Your task to perform on an android device: delete location history Image 0: 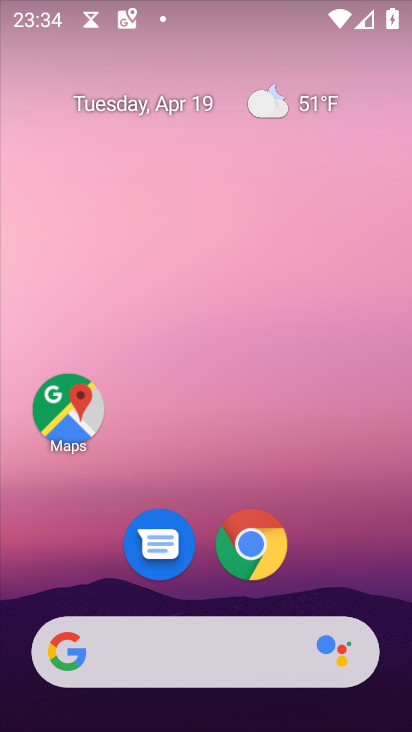
Step 0: drag from (342, 487) to (353, 70)
Your task to perform on an android device: delete location history Image 1: 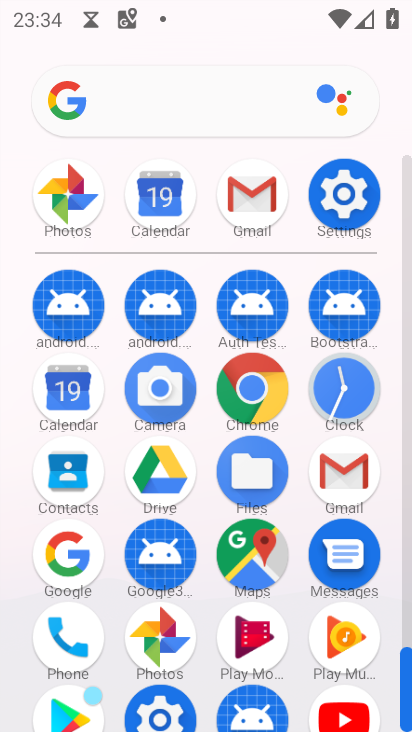
Step 1: click (260, 563)
Your task to perform on an android device: delete location history Image 2: 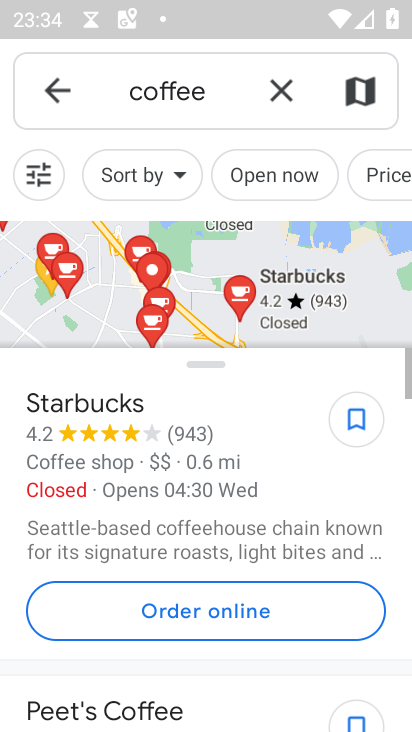
Step 2: click (37, 98)
Your task to perform on an android device: delete location history Image 3: 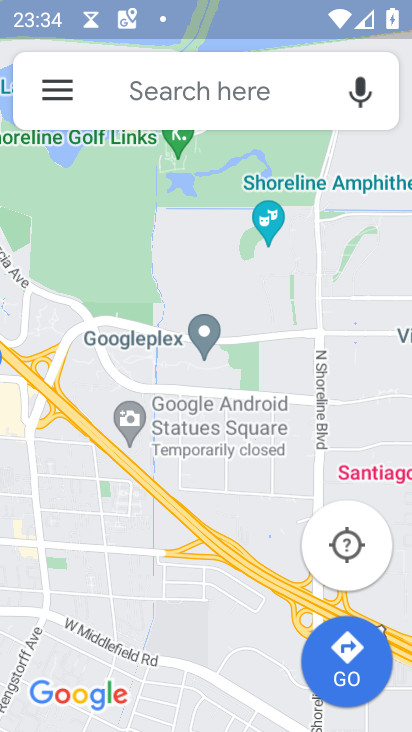
Step 3: click (44, 93)
Your task to perform on an android device: delete location history Image 4: 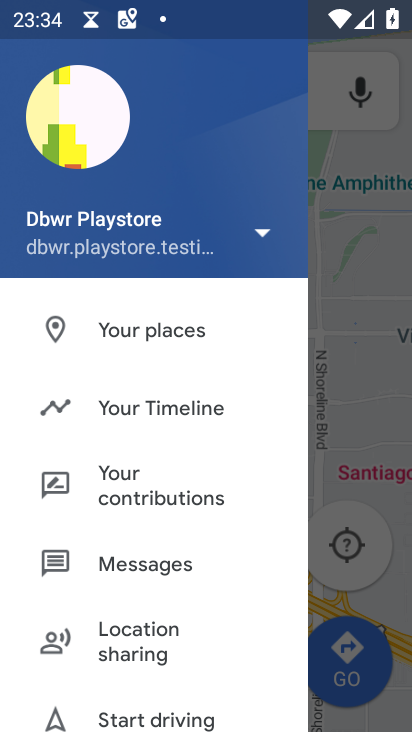
Step 4: click (131, 407)
Your task to perform on an android device: delete location history Image 5: 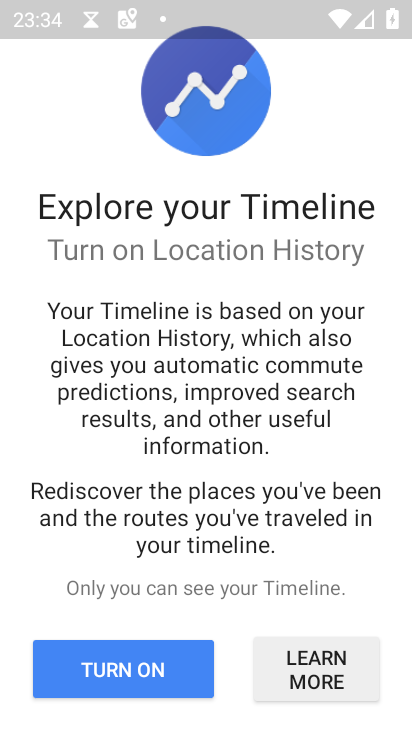
Step 5: drag from (243, 600) to (274, 282)
Your task to perform on an android device: delete location history Image 6: 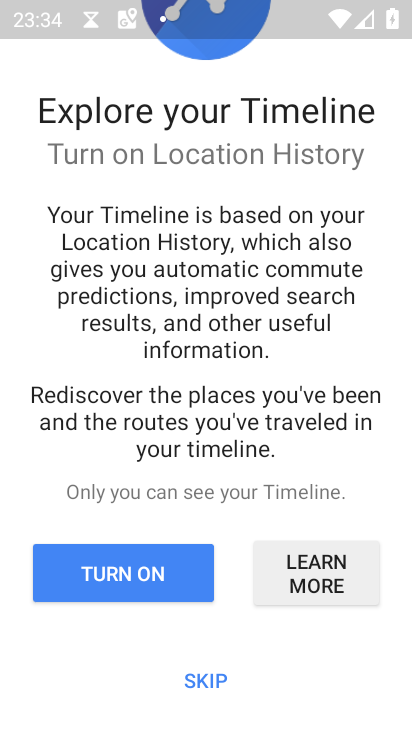
Step 6: click (188, 678)
Your task to perform on an android device: delete location history Image 7: 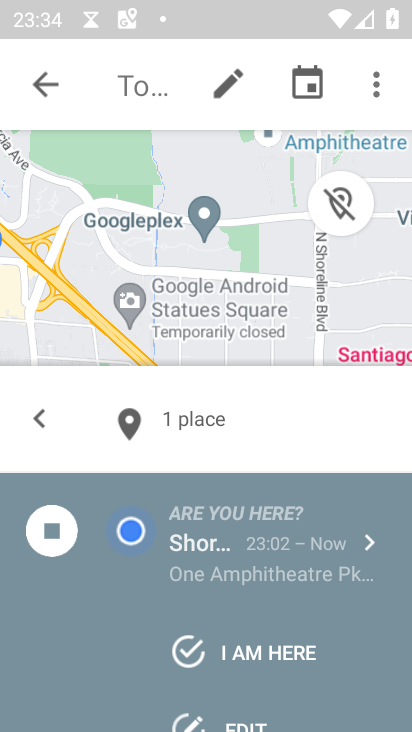
Step 7: click (377, 81)
Your task to perform on an android device: delete location history Image 8: 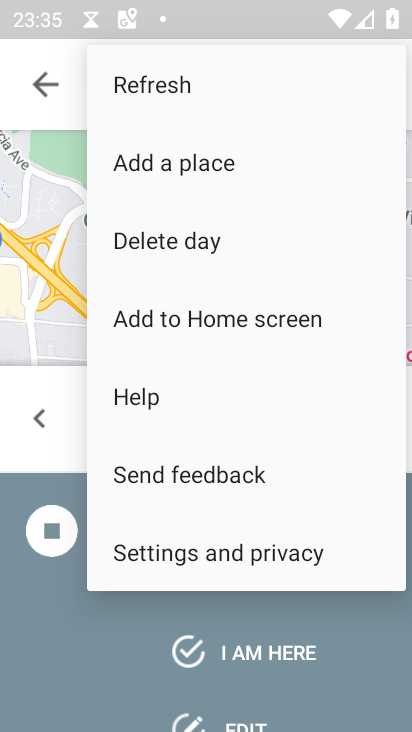
Step 8: click (211, 562)
Your task to perform on an android device: delete location history Image 9: 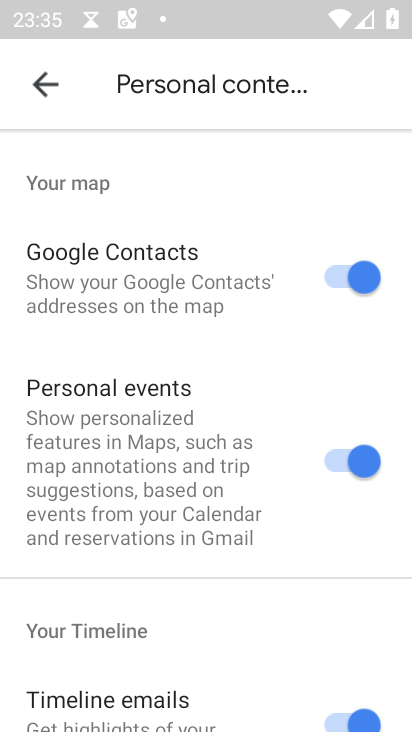
Step 9: drag from (162, 595) to (166, 436)
Your task to perform on an android device: delete location history Image 10: 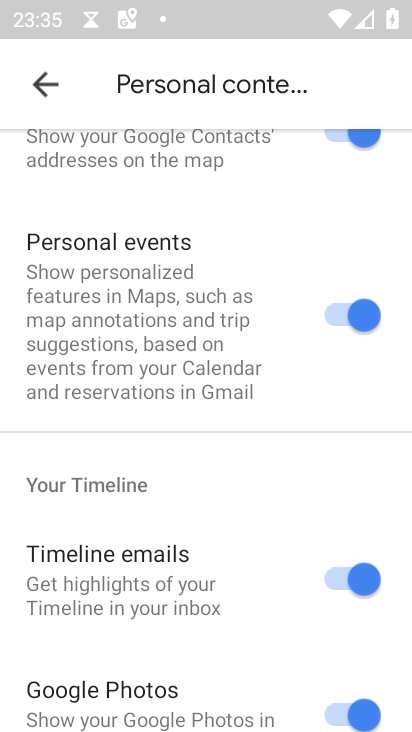
Step 10: drag from (192, 580) to (186, 454)
Your task to perform on an android device: delete location history Image 11: 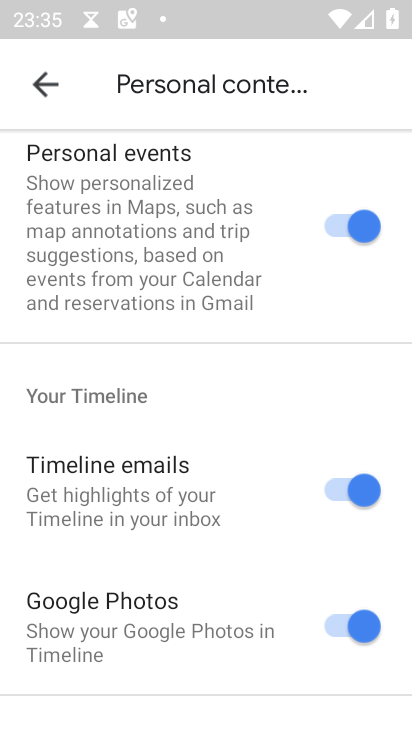
Step 11: drag from (193, 578) to (196, 473)
Your task to perform on an android device: delete location history Image 12: 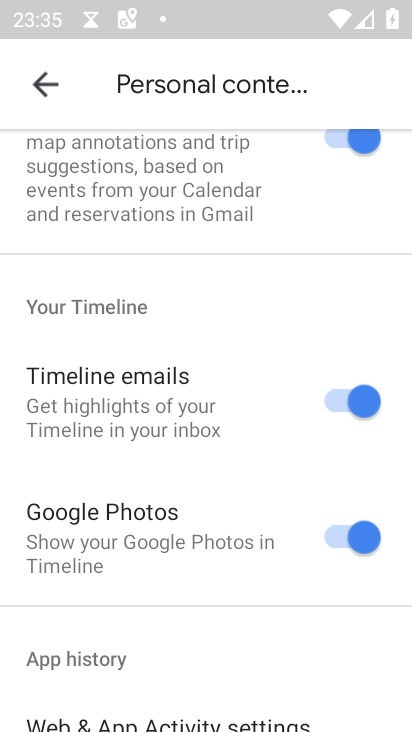
Step 12: drag from (168, 602) to (188, 497)
Your task to perform on an android device: delete location history Image 13: 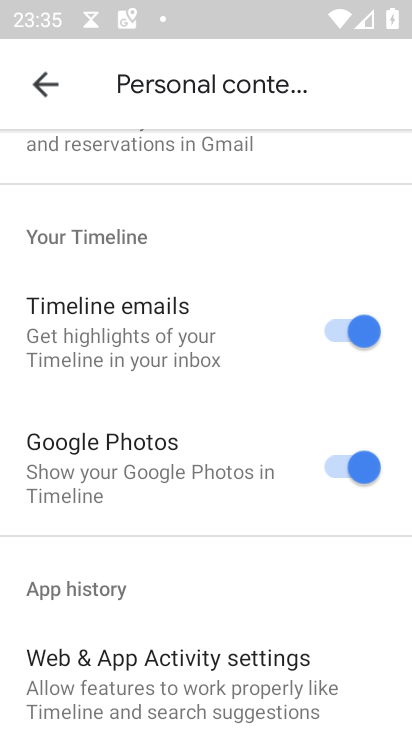
Step 13: drag from (169, 583) to (179, 472)
Your task to perform on an android device: delete location history Image 14: 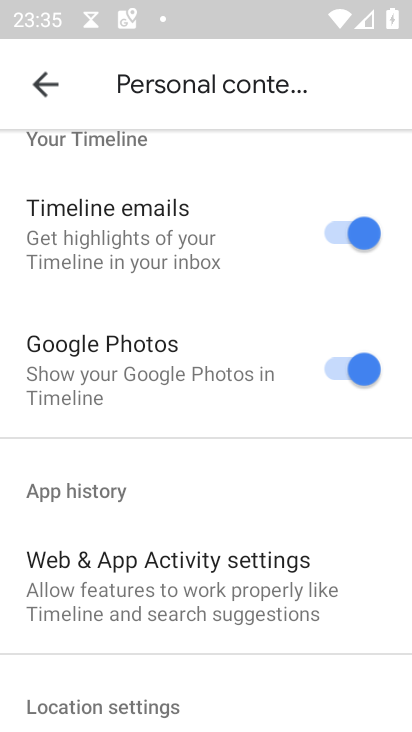
Step 14: drag from (183, 569) to (186, 466)
Your task to perform on an android device: delete location history Image 15: 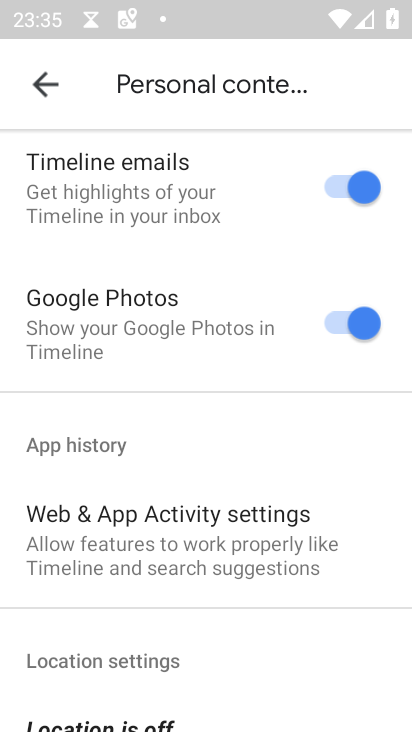
Step 15: drag from (184, 591) to (176, 501)
Your task to perform on an android device: delete location history Image 16: 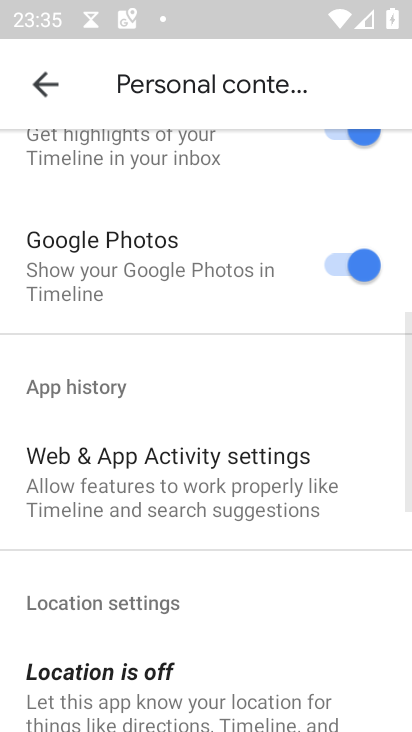
Step 16: drag from (197, 598) to (196, 489)
Your task to perform on an android device: delete location history Image 17: 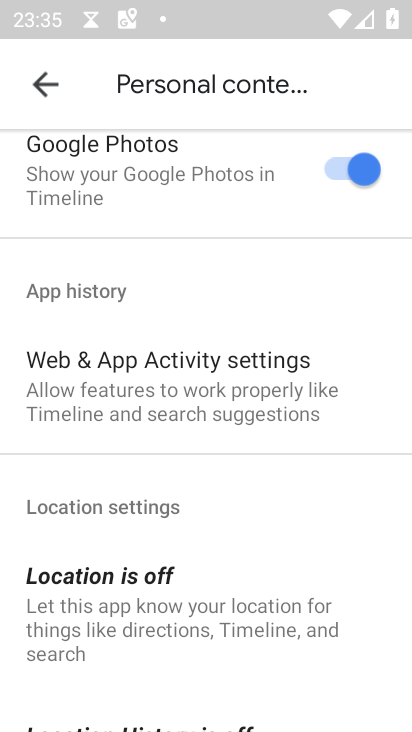
Step 17: drag from (175, 592) to (179, 487)
Your task to perform on an android device: delete location history Image 18: 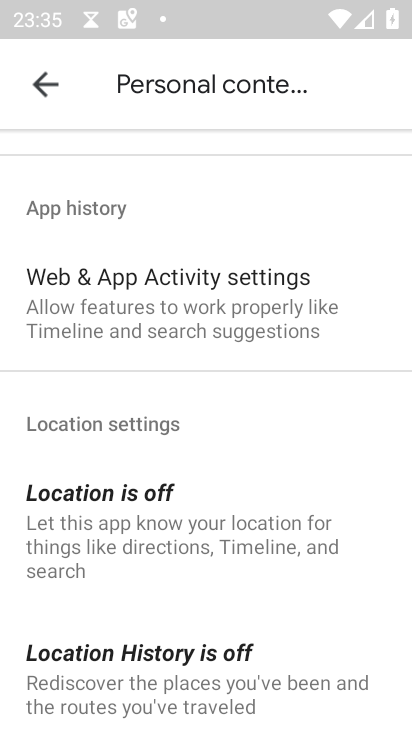
Step 18: drag from (194, 589) to (211, 492)
Your task to perform on an android device: delete location history Image 19: 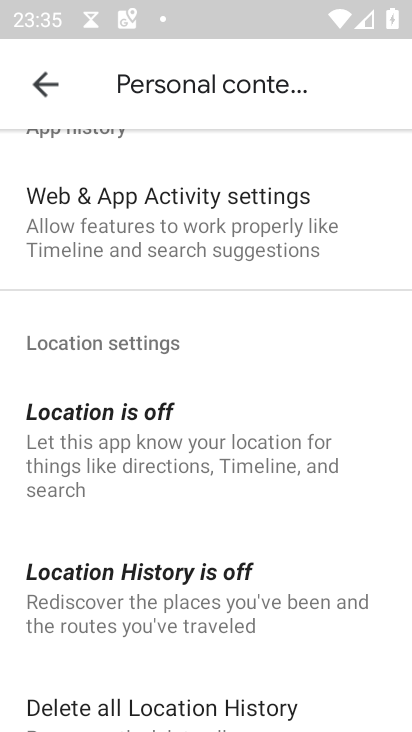
Step 19: drag from (201, 591) to (227, 470)
Your task to perform on an android device: delete location history Image 20: 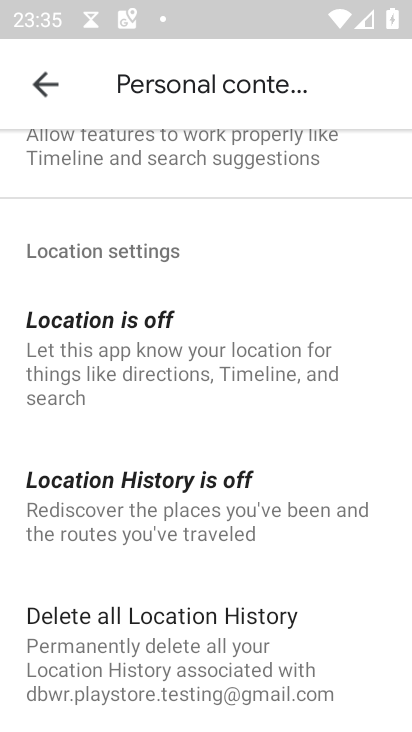
Step 20: click (173, 659)
Your task to perform on an android device: delete location history Image 21: 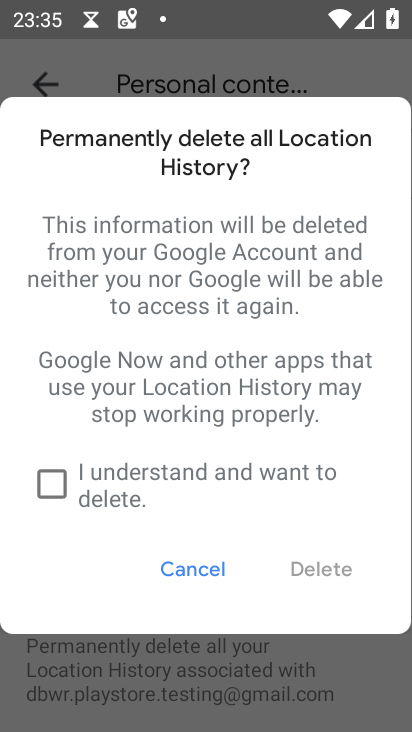
Step 21: click (38, 480)
Your task to perform on an android device: delete location history Image 22: 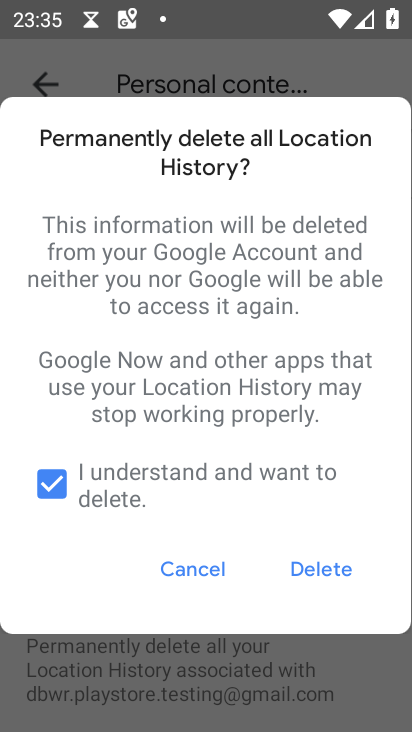
Step 22: click (300, 577)
Your task to perform on an android device: delete location history Image 23: 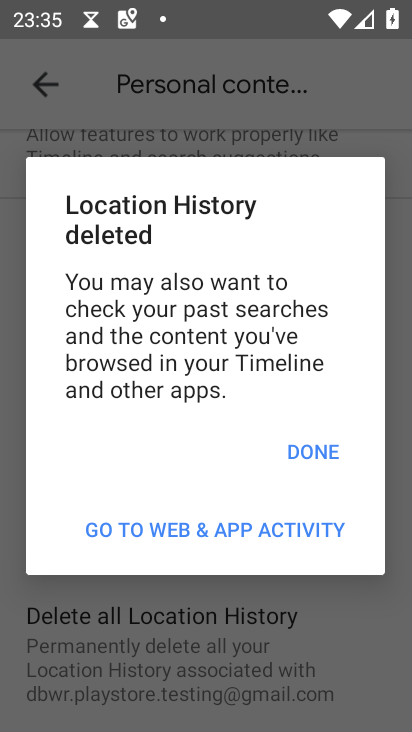
Step 23: click (312, 450)
Your task to perform on an android device: delete location history Image 24: 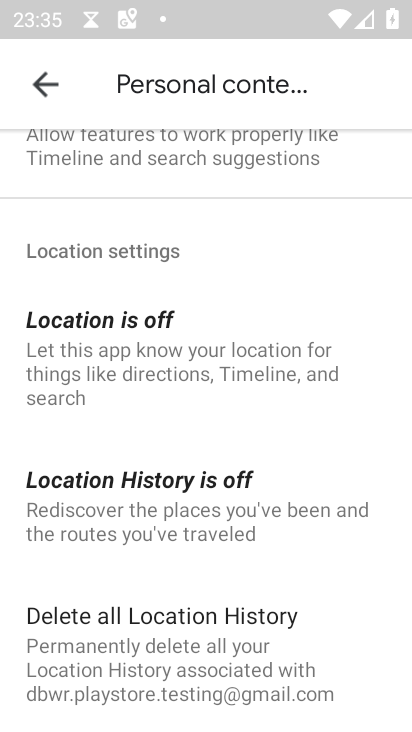
Step 24: task complete